Your task to perform on an android device: change text size in settings app Image 0: 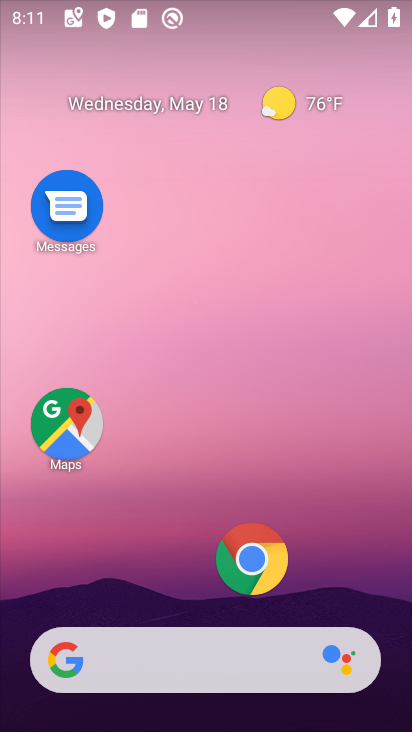
Step 0: drag from (260, 614) to (238, 85)
Your task to perform on an android device: change text size in settings app Image 1: 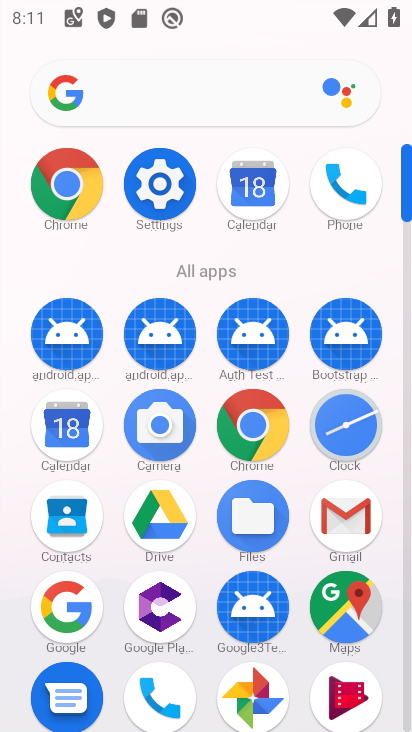
Step 1: click (165, 199)
Your task to perform on an android device: change text size in settings app Image 2: 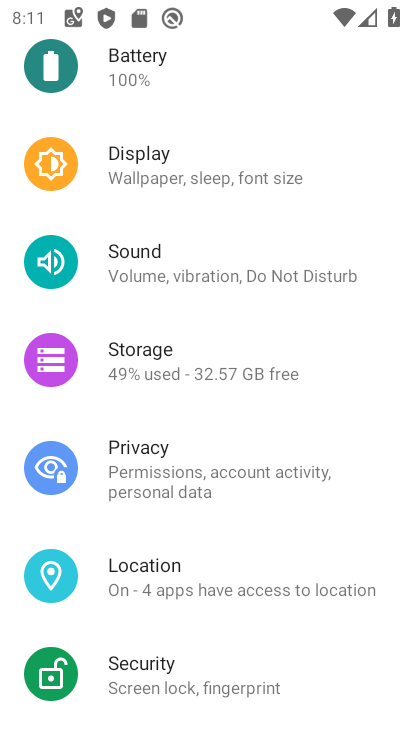
Step 2: click (172, 181)
Your task to perform on an android device: change text size in settings app Image 3: 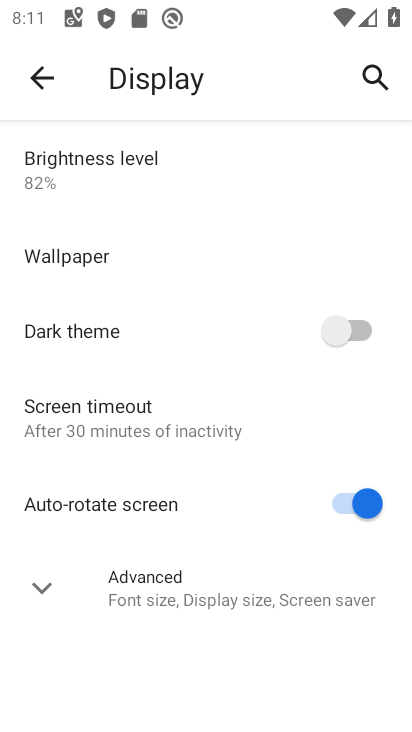
Step 3: click (137, 589)
Your task to perform on an android device: change text size in settings app Image 4: 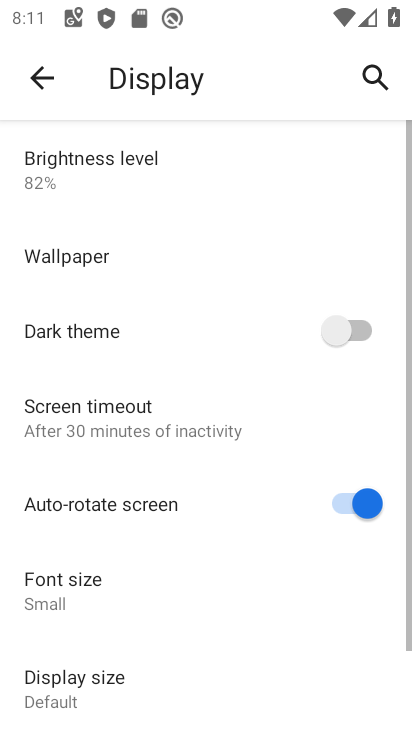
Step 4: click (137, 589)
Your task to perform on an android device: change text size in settings app Image 5: 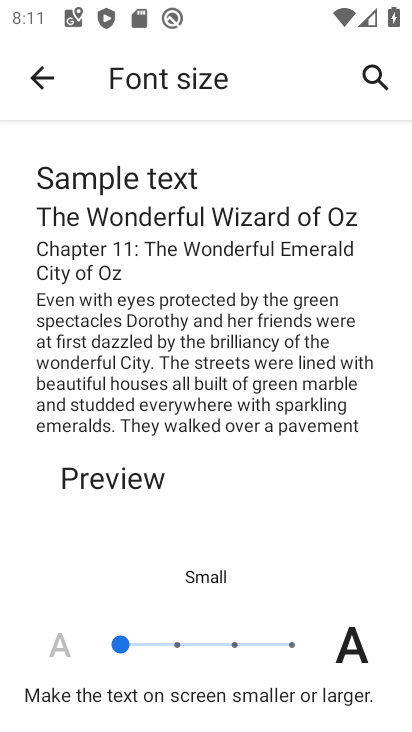
Step 5: click (176, 637)
Your task to perform on an android device: change text size in settings app Image 6: 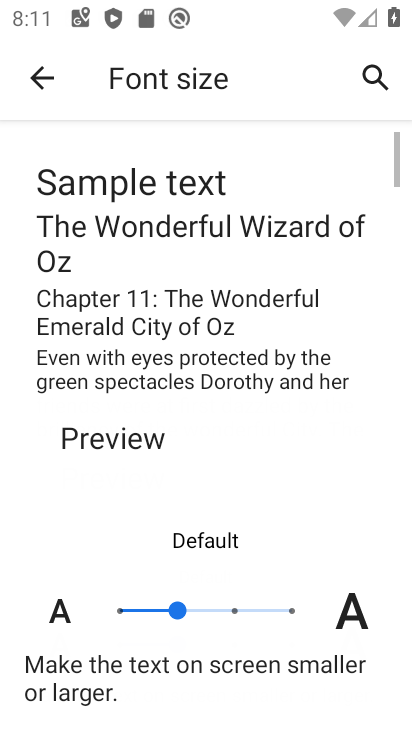
Step 6: task complete